Your task to perform on an android device: Open Chrome and go to the settings page Image 0: 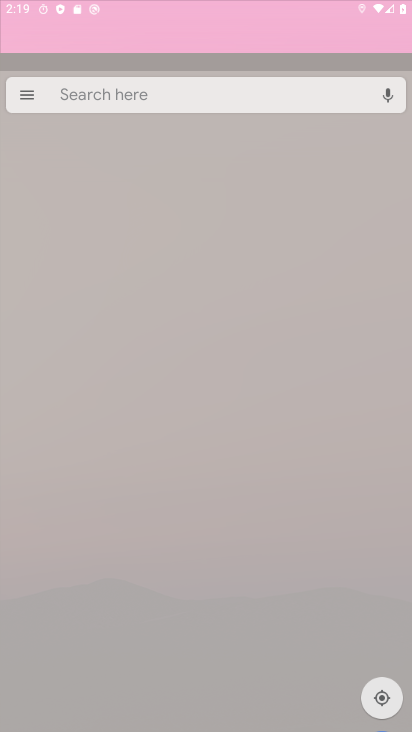
Step 0: click (288, 232)
Your task to perform on an android device: Open Chrome and go to the settings page Image 1: 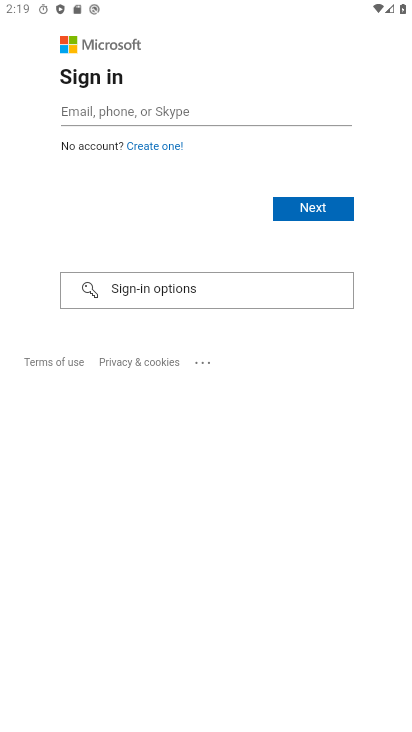
Step 1: press home button
Your task to perform on an android device: Open Chrome and go to the settings page Image 2: 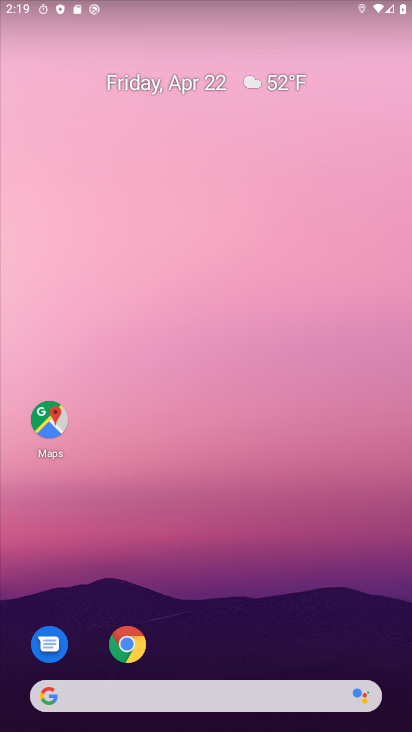
Step 2: drag from (274, 624) to (231, 287)
Your task to perform on an android device: Open Chrome and go to the settings page Image 3: 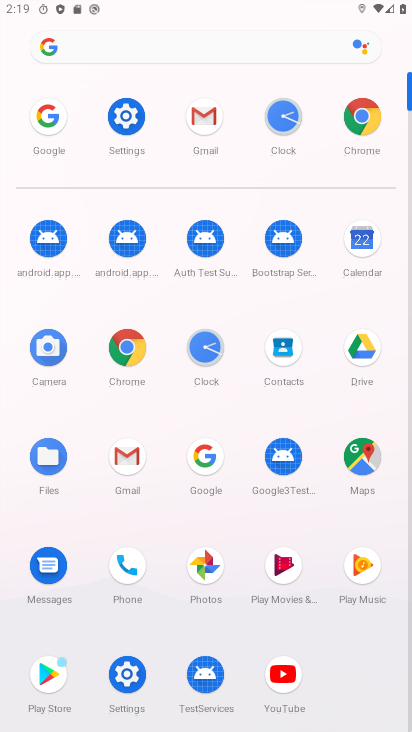
Step 3: click (131, 368)
Your task to perform on an android device: Open Chrome and go to the settings page Image 4: 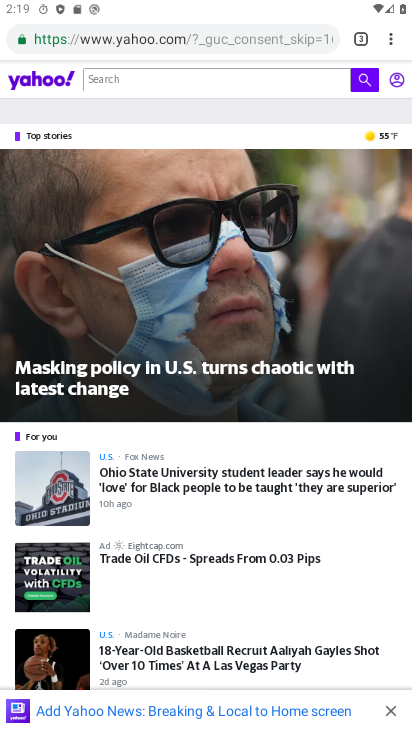
Step 4: click (391, 37)
Your task to perform on an android device: Open Chrome and go to the settings page Image 5: 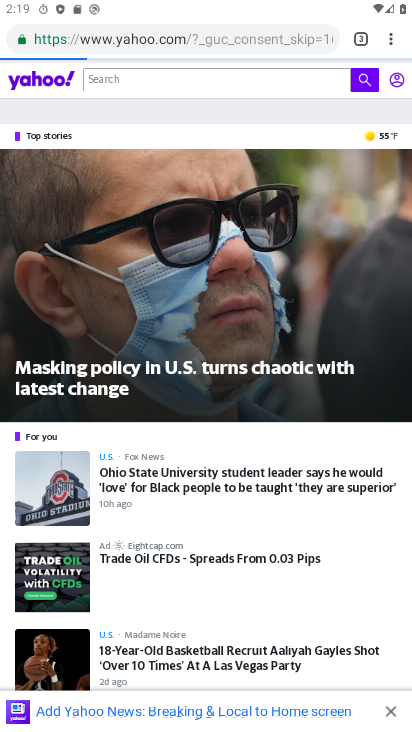
Step 5: click (391, 37)
Your task to perform on an android device: Open Chrome and go to the settings page Image 6: 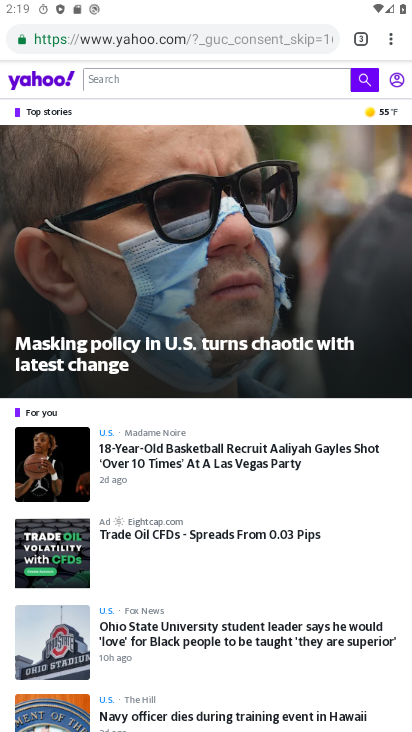
Step 6: click (392, 35)
Your task to perform on an android device: Open Chrome and go to the settings page Image 7: 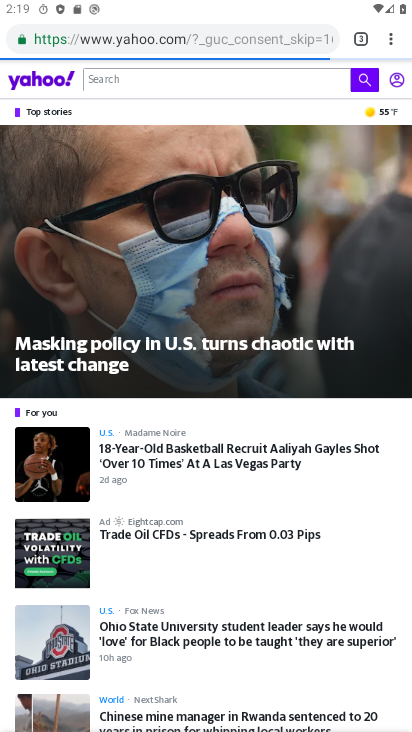
Step 7: click (390, 41)
Your task to perform on an android device: Open Chrome and go to the settings page Image 8: 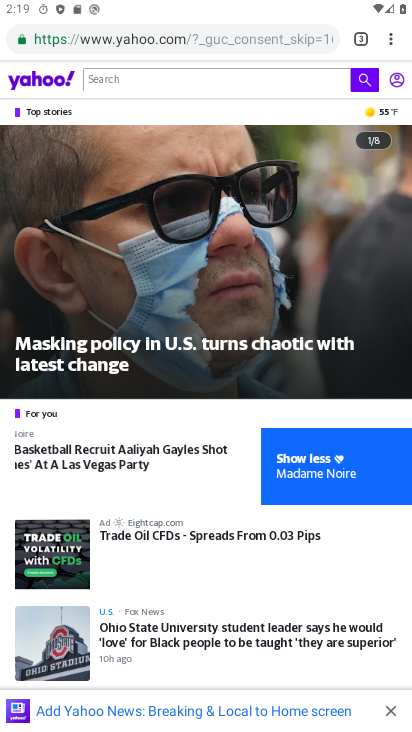
Step 8: click (392, 41)
Your task to perform on an android device: Open Chrome and go to the settings page Image 9: 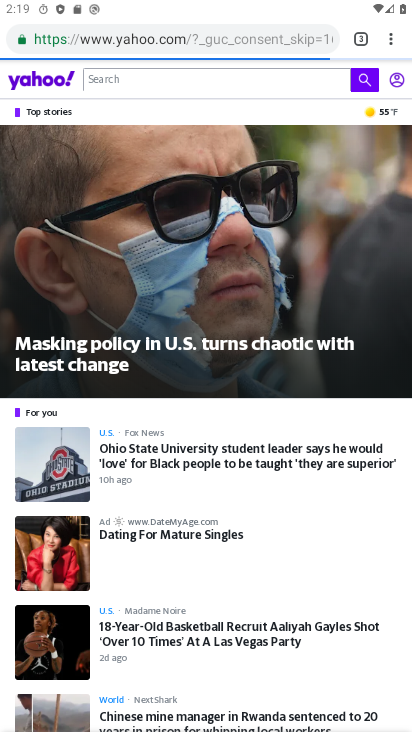
Step 9: click (392, 42)
Your task to perform on an android device: Open Chrome and go to the settings page Image 10: 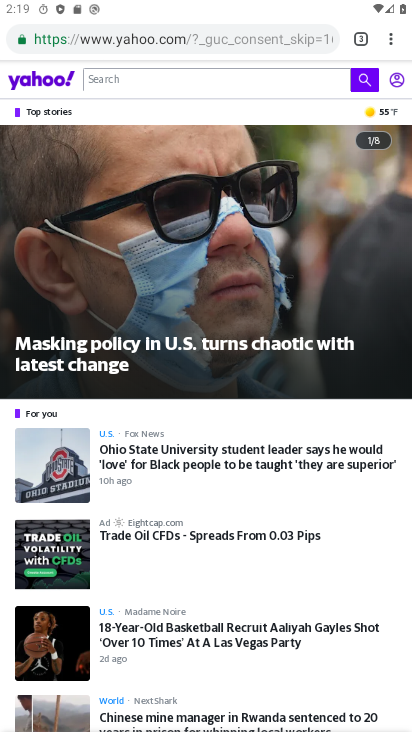
Step 10: click (390, 34)
Your task to perform on an android device: Open Chrome and go to the settings page Image 11: 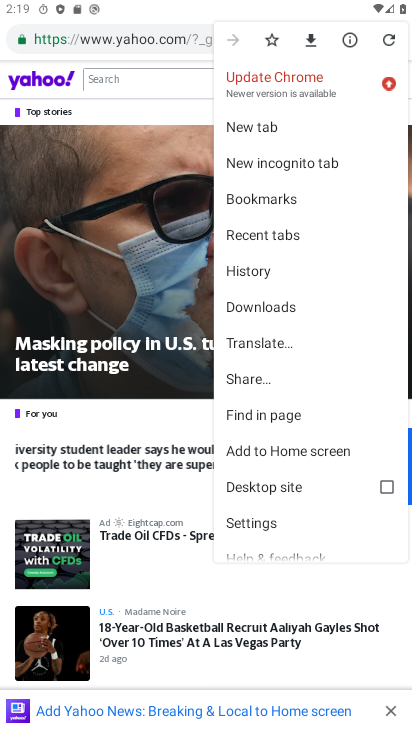
Step 11: click (265, 523)
Your task to perform on an android device: Open Chrome and go to the settings page Image 12: 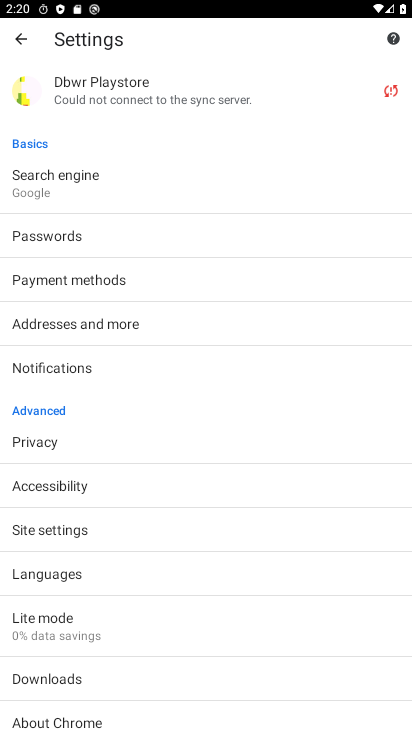
Step 12: task complete